Your task to perform on an android device: turn on bluetooth scan Image 0: 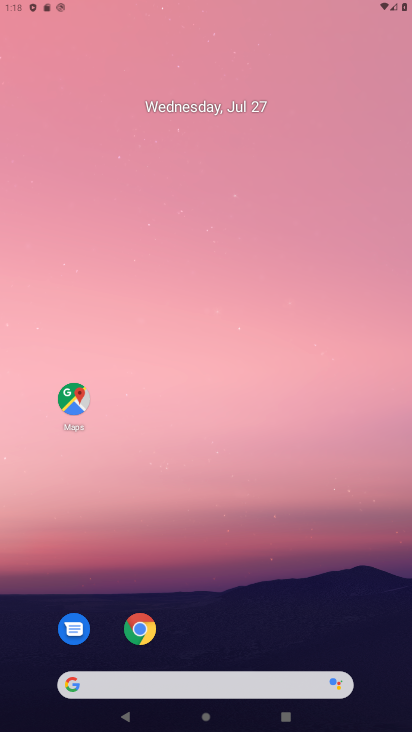
Step 0: press home button
Your task to perform on an android device: turn on bluetooth scan Image 1: 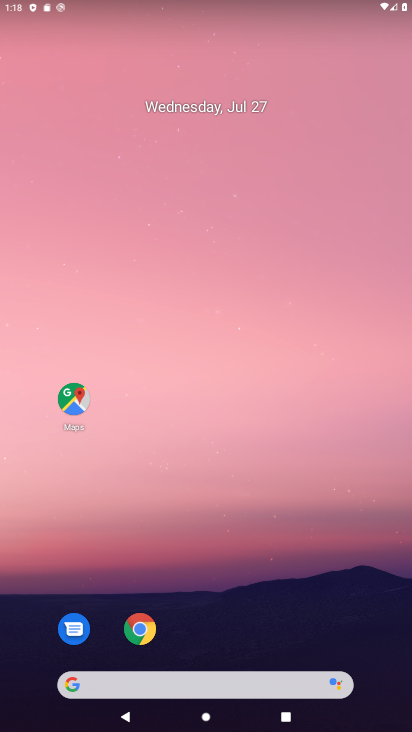
Step 1: drag from (249, 646) to (293, 2)
Your task to perform on an android device: turn on bluetooth scan Image 2: 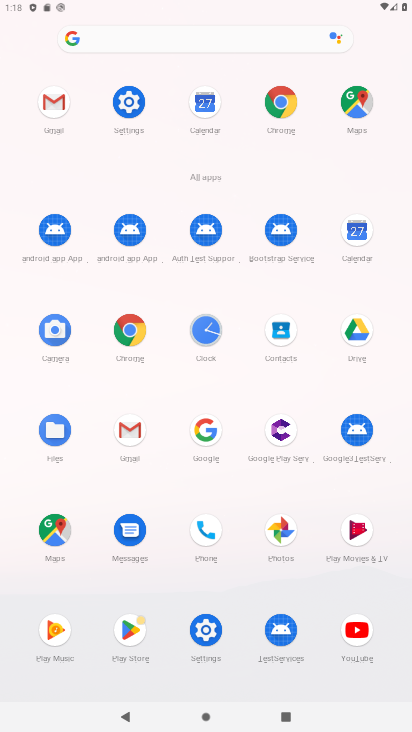
Step 2: click (116, 111)
Your task to perform on an android device: turn on bluetooth scan Image 3: 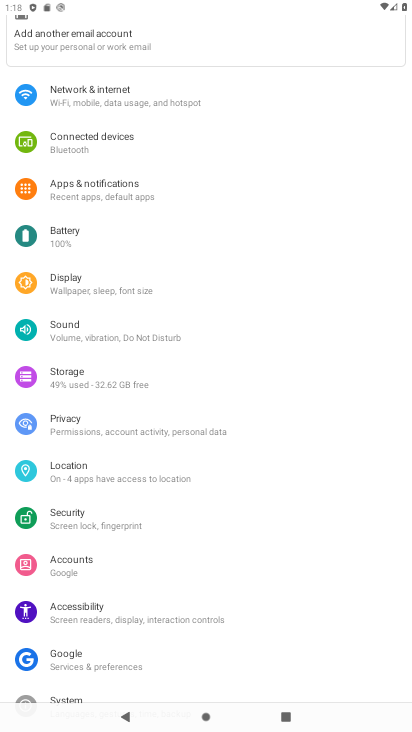
Step 3: click (77, 474)
Your task to perform on an android device: turn on bluetooth scan Image 4: 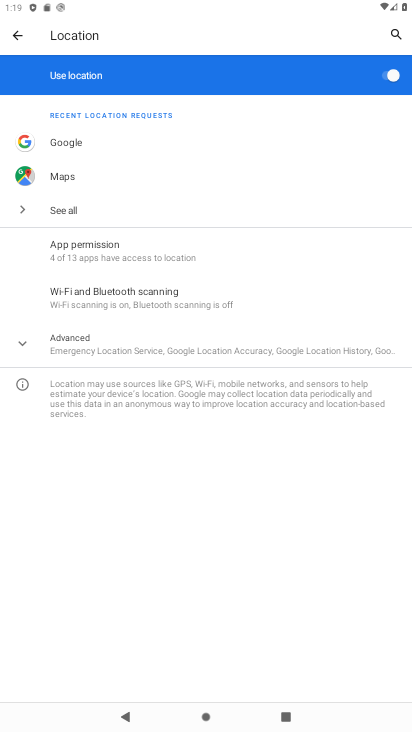
Step 4: click (95, 287)
Your task to perform on an android device: turn on bluetooth scan Image 5: 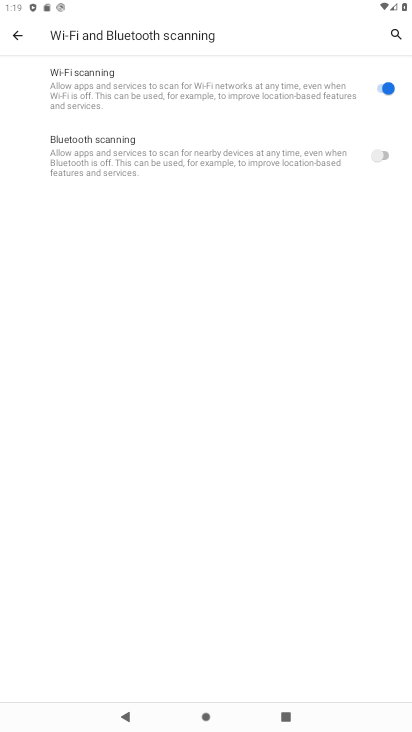
Step 5: click (376, 156)
Your task to perform on an android device: turn on bluetooth scan Image 6: 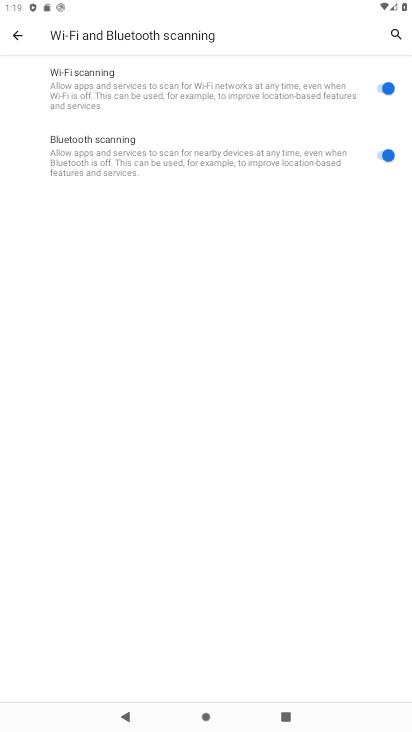
Step 6: task complete